Your task to perform on an android device: clear all cookies in the chrome app Image 0: 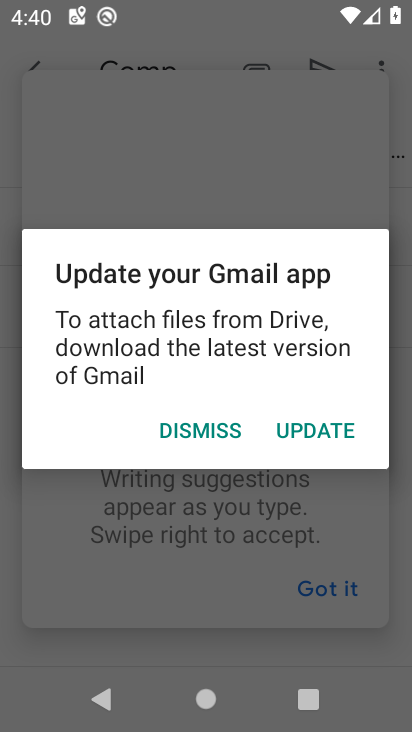
Step 0: press home button
Your task to perform on an android device: clear all cookies in the chrome app Image 1: 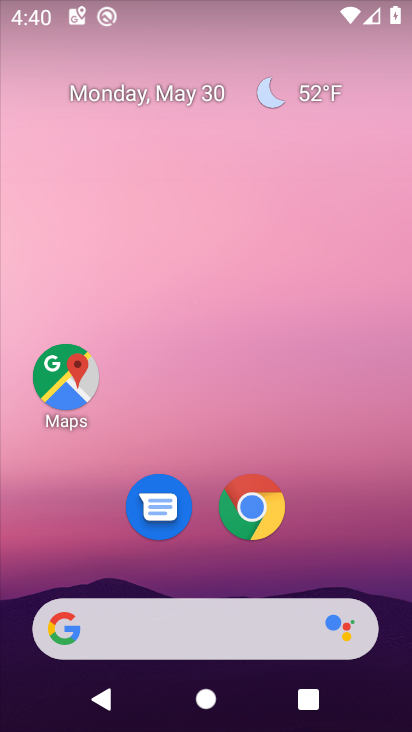
Step 1: drag from (272, 562) to (328, 1)
Your task to perform on an android device: clear all cookies in the chrome app Image 2: 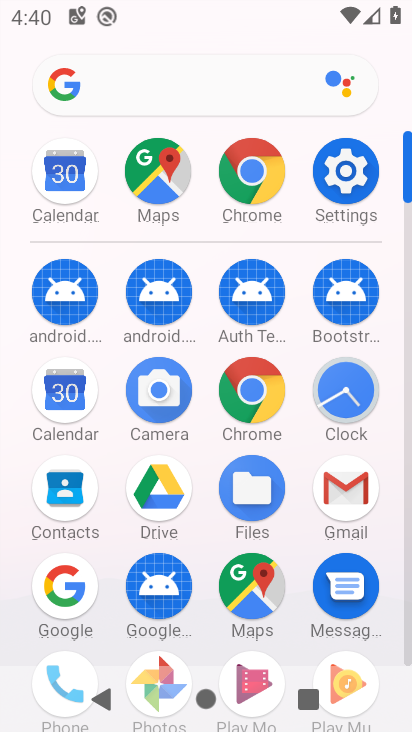
Step 2: click (276, 179)
Your task to perform on an android device: clear all cookies in the chrome app Image 3: 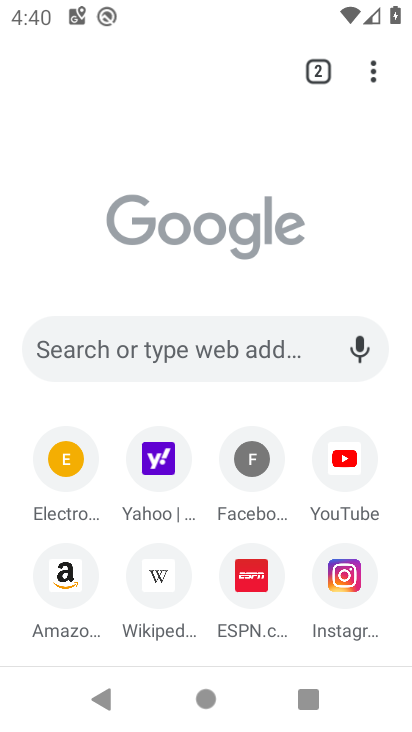
Step 3: drag from (373, 68) to (182, 520)
Your task to perform on an android device: clear all cookies in the chrome app Image 4: 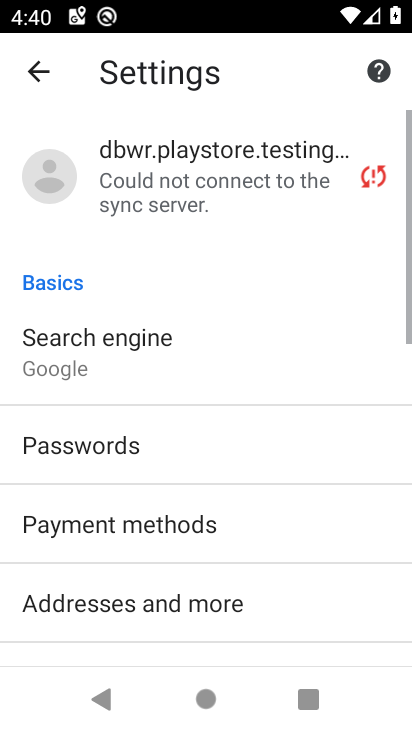
Step 4: drag from (202, 577) to (197, 264)
Your task to perform on an android device: clear all cookies in the chrome app Image 5: 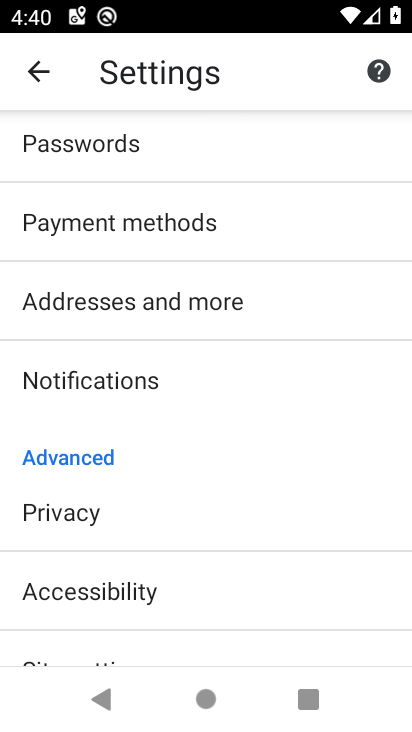
Step 5: drag from (187, 645) to (194, 278)
Your task to perform on an android device: clear all cookies in the chrome app Image 6: 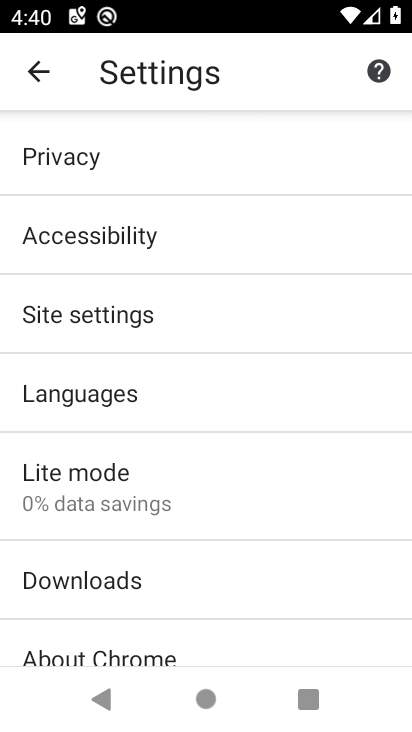
Step 6: click (122, 324)
Your task to perform on an android device: clear all cookies in the chrome app Image 7: 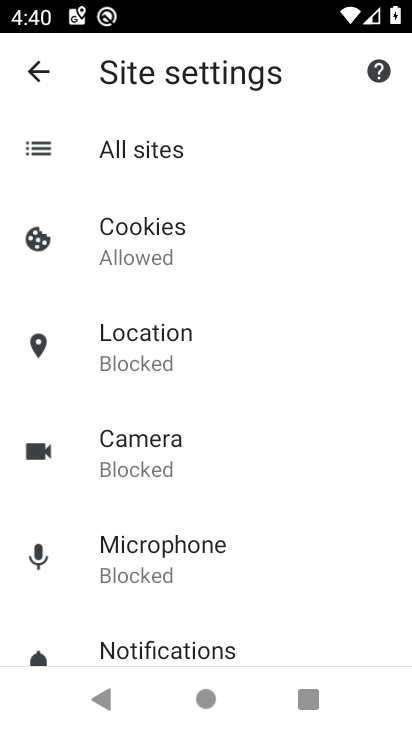
Step 7: click (52, 60)
Your task to perform on an android device: clear all cookies in the chrome app Image 8: 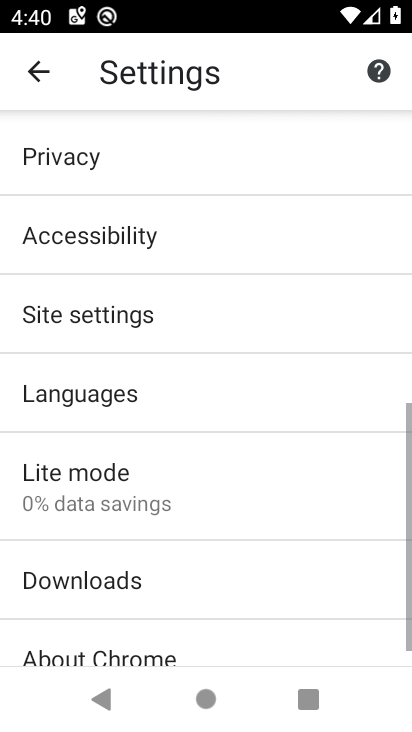
Step 8: drag from (229, 514) to (246, 334)
Your task to perform on an android device: clear all cookies in the chrome app Image 9: 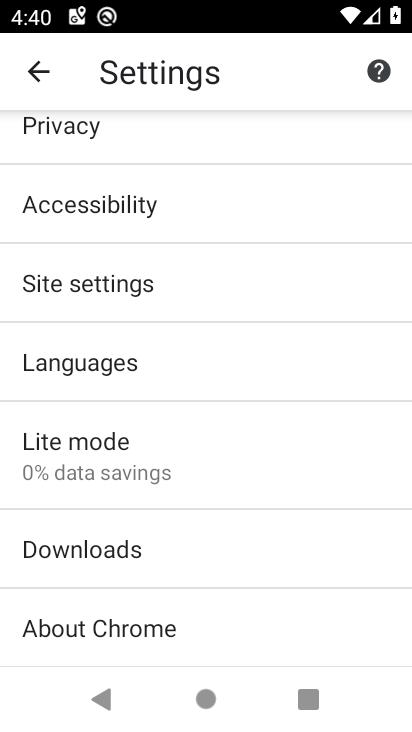
Step 9: click (241, 153)
Your task to perform on an android device: clear all cookies in the chrome app Image 10: 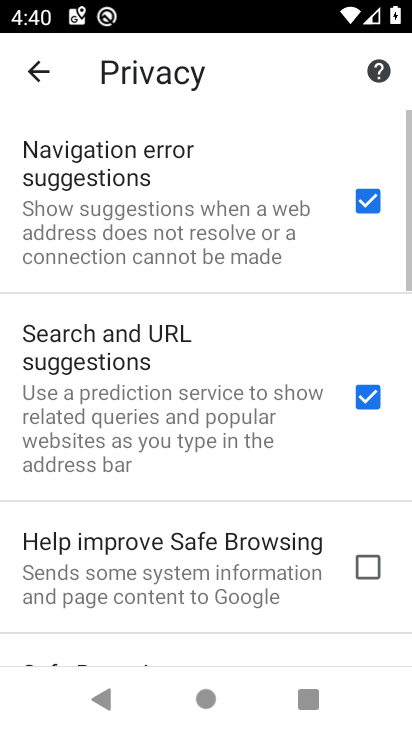
Step 10: drag from (272, 609) to (332, 68)
Your task to perform on an android device: clear all cookies in the chrome app Image 11: 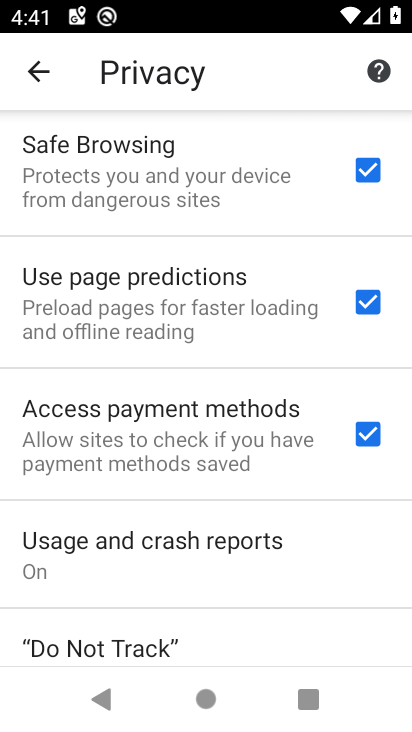
Step 11: drag from (87, 580) to (268, 127)
Your task to perform on an android device: clear all cookies in the chrome app Image 12: 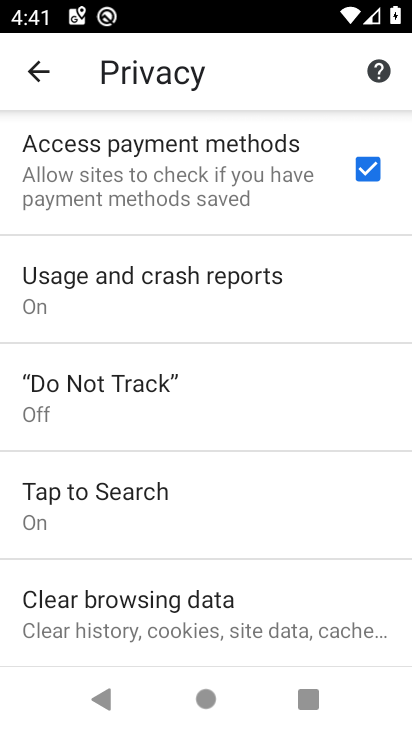
Step 12: click (189, 598)
Your task to perform on an android device: clear all cookies in the chrome app Image 13: 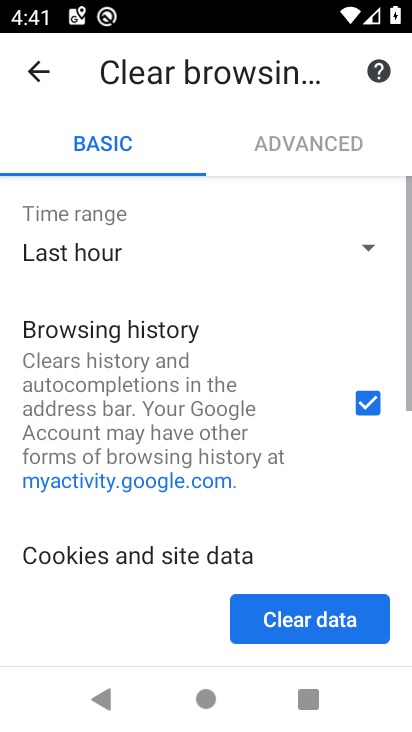
Step 13: drag from (279, 516) to (347, 273)
Your task to perform on an android device: clear all cookies in the chrome app Image 14: 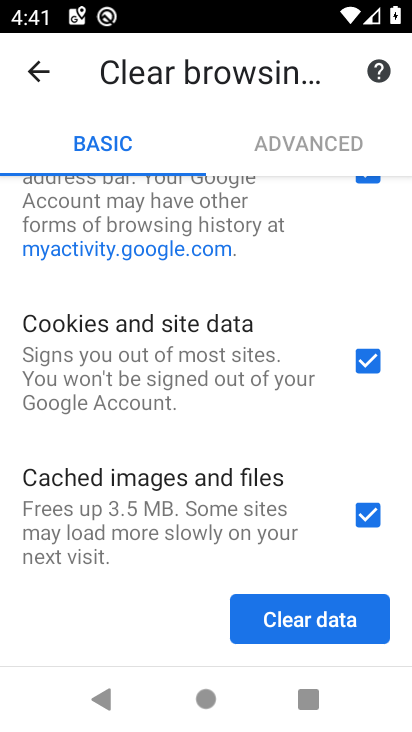
Step 14: click (312, 620)
Your task to perform on an android device: clear all cookies in the chrome app Image 15: 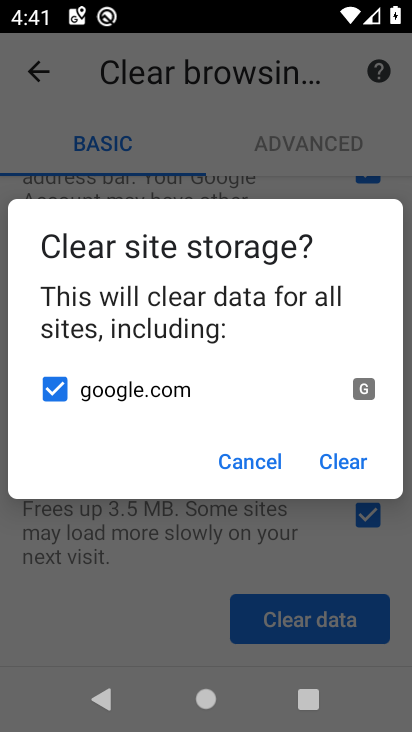
Step 15: click (357, 453)
Your task to perform on an android device: clear all cookies in the chrome app Image 16: 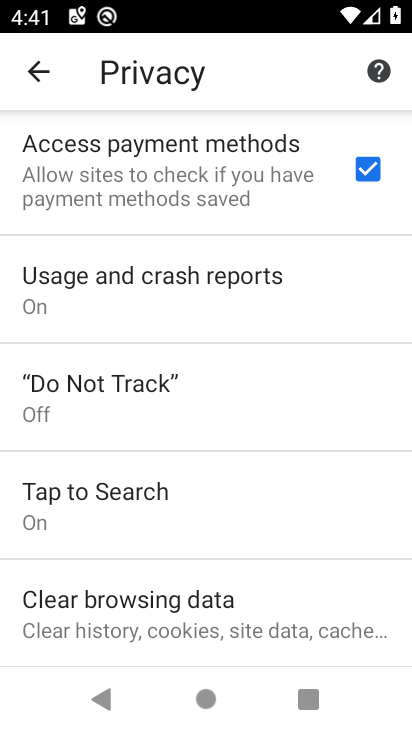
Step 16: task complete